Your task to perform on an android device: Open my contact list Image 0: 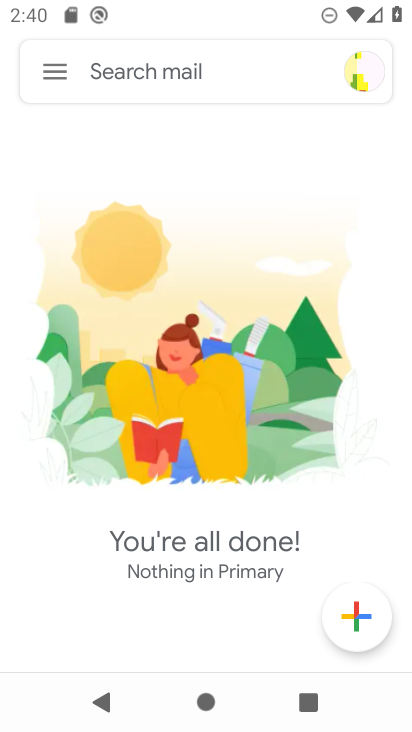
Step 0: press home button
Your task to perform on an android device: Open my contact list Image 1: 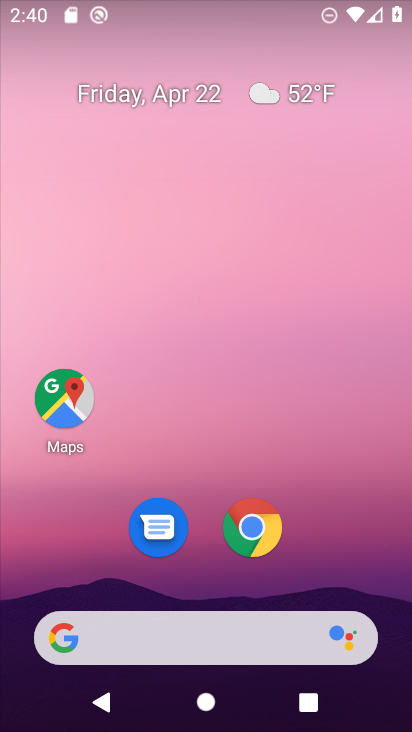
Step 1: drag from (333, 564) to (312, 126)
Your task to perform on an android device: Open my contact list Image 2: 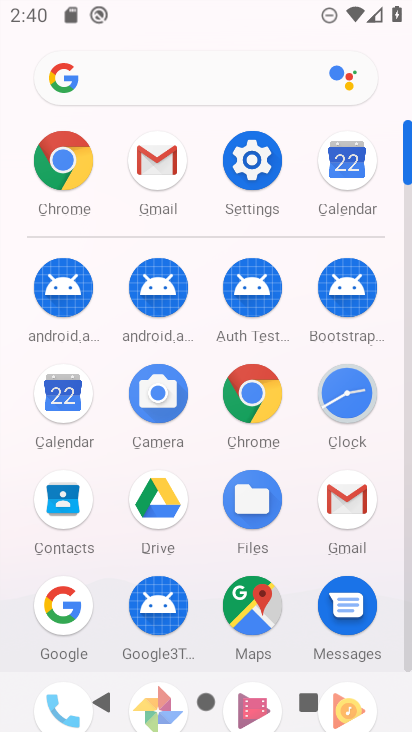
Step 2: drag from (404, 166) to (399, 444)
Your task to perform on an android device: Open my contact list Image 3: 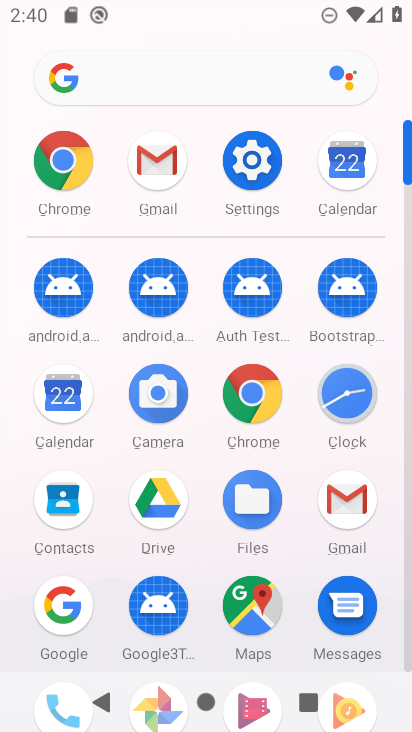
Step 3: click (410, 479)
Your task to perform on an android device: Open my contact list Image 4: 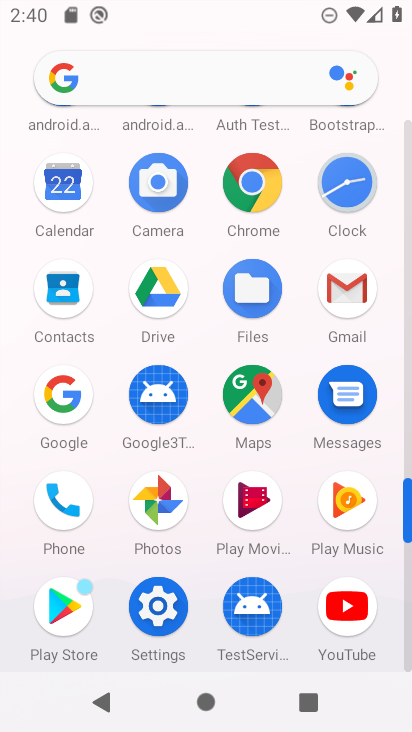
Step 4: click (407, 335)
Your task to perform on an android device: Open my contact list Image 5: 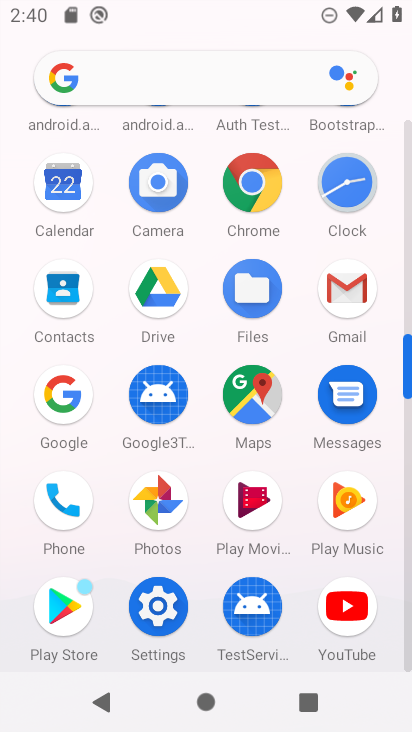
Step 5: click (409, 312)
Your task to perform on an android device: Open my contact list Image 6: 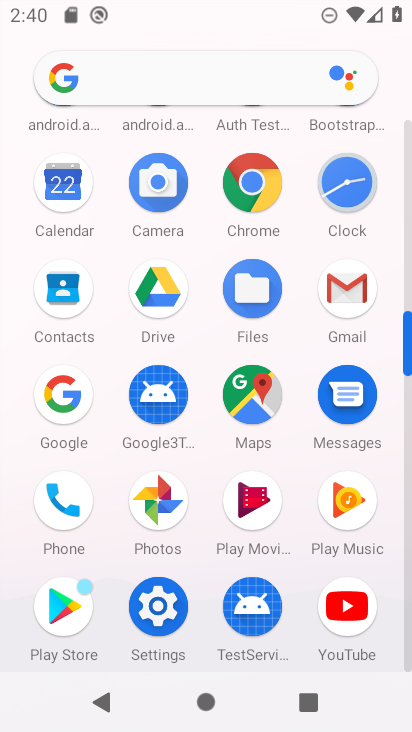
Step 6: click (409, 197)
Your task to perform on an android device: Open my contact list Image 7: 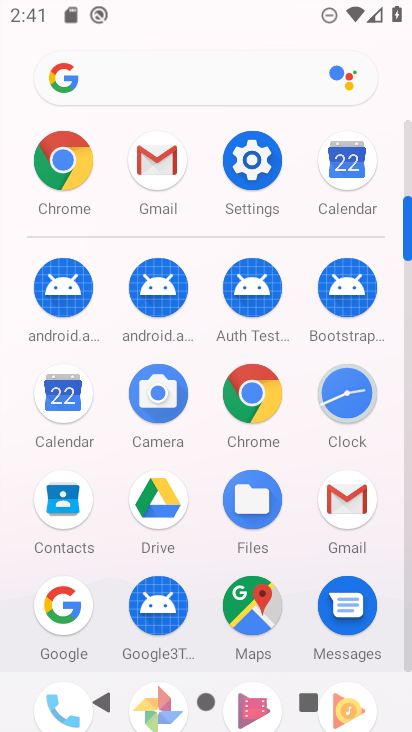
Step 7: click (71, 490)
Your task to perform on an android device: Open my contact list Image 8: 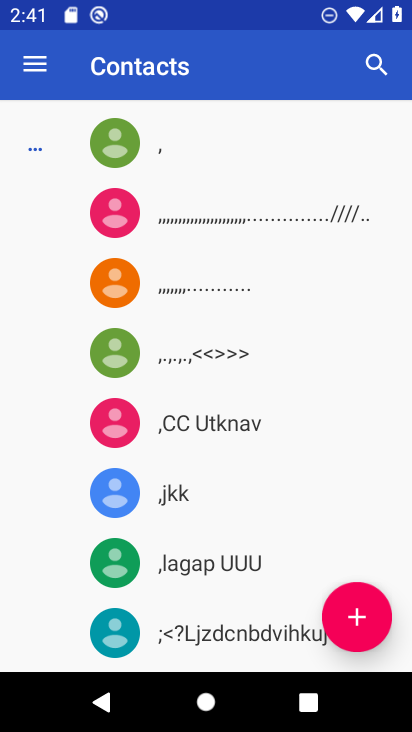
Step 8: task complete